Your task to perform on an android device: turn on translation in the chrome app Image 0: 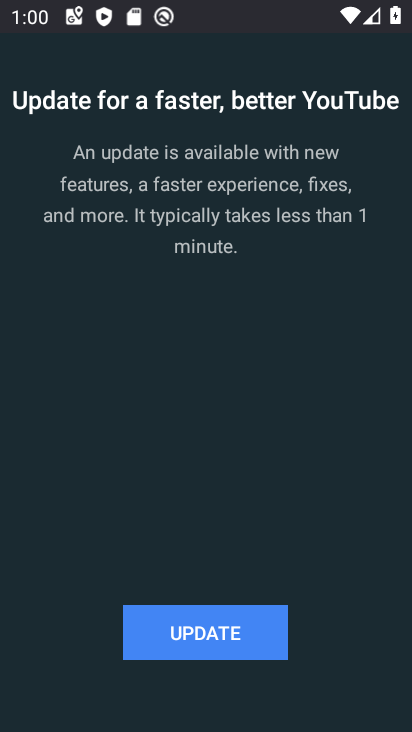
Step 0: drag from (363, 587) to (354, 534)
Your task to perform on an android device: turn on translation in the chrome app Image 1: 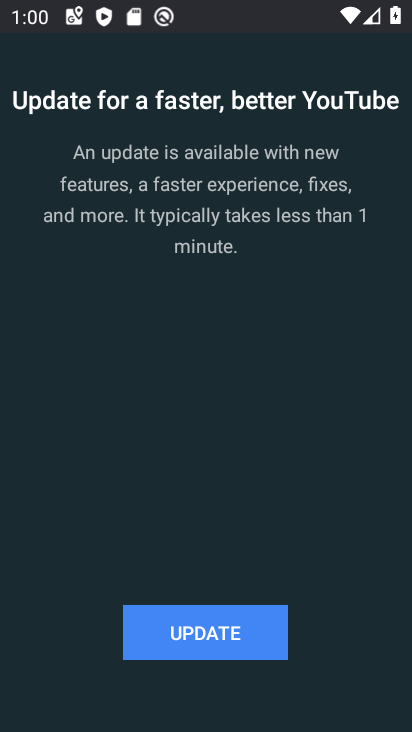
Step 1: press home button
Your task to perform on an android device: turn on translation in the chrome app Image 2: 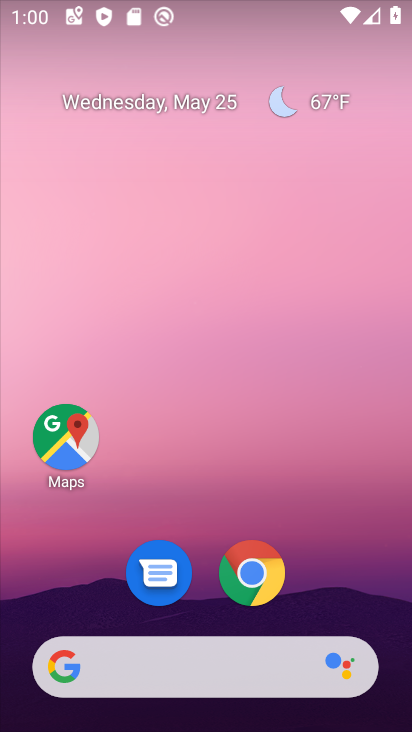
Step 2: click (251, 574)
Your task to perform on an android device: turn on translation in the chrome app Image 3: 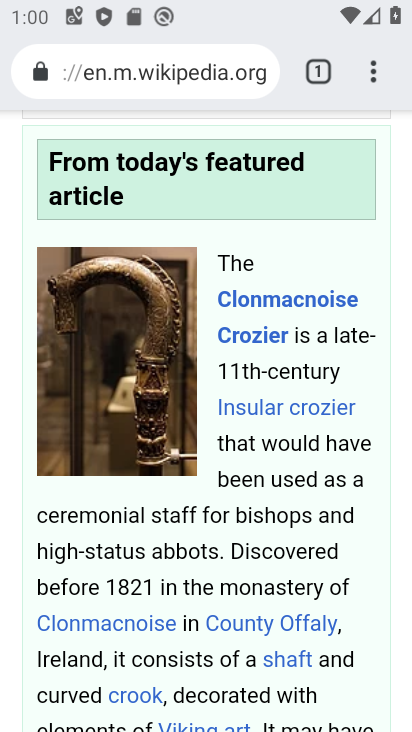
Step 3: click (381, 80)
Your task to perform on an android device: turn on translation in the chrome app Image 4: 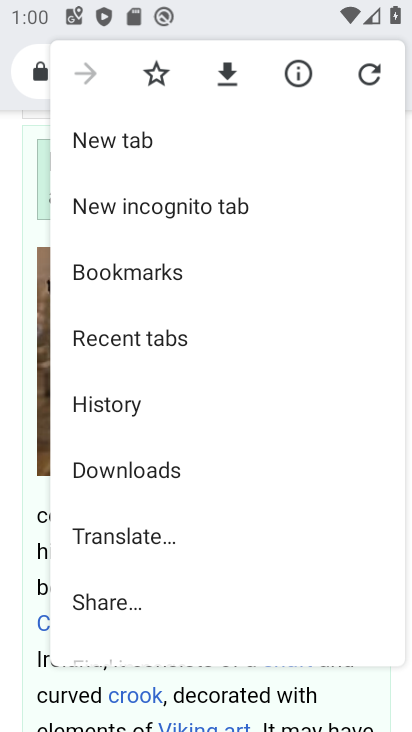
Step 4: drag from (229, 586) to (254, 218)
Your task to perform on an android device: turn on translation in the chrome app Image 5: 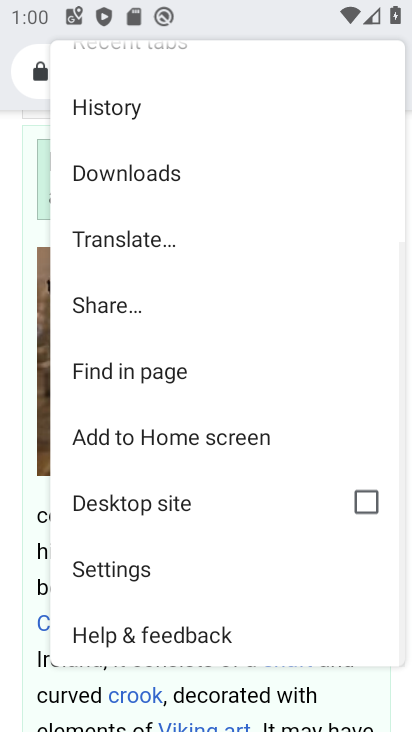
Step 5: click (111, 576)
Your task to perform on an android device: turn on translation in the chrome app Image 6: 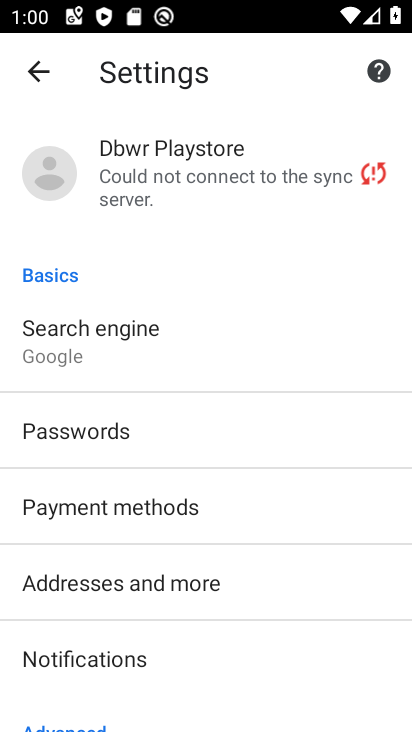
Step 6: drag from (283, 639) to (221, 259)
Your task to perform on an android device: turn on translation in the chrome app Image 7: 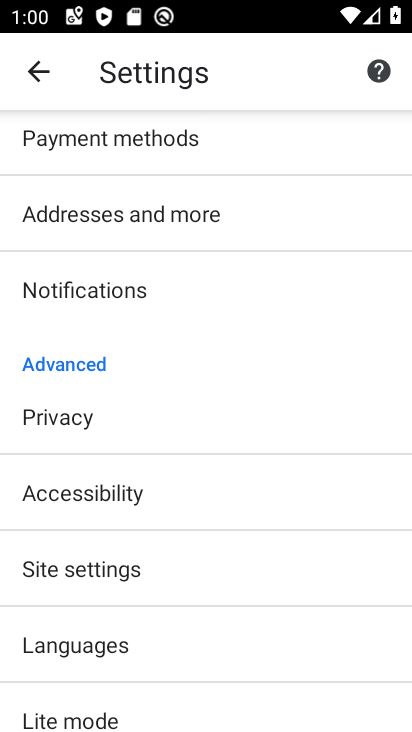
Step 7: click (77, 637)
Your task to perform on an android device: turn on translation in the chrome app Image 8: 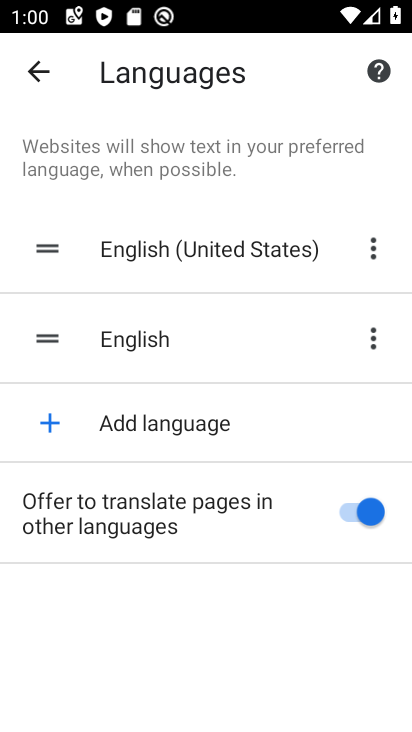
Step 8: task complete